Your task to perform on an android device: turn off wifi Image 0: 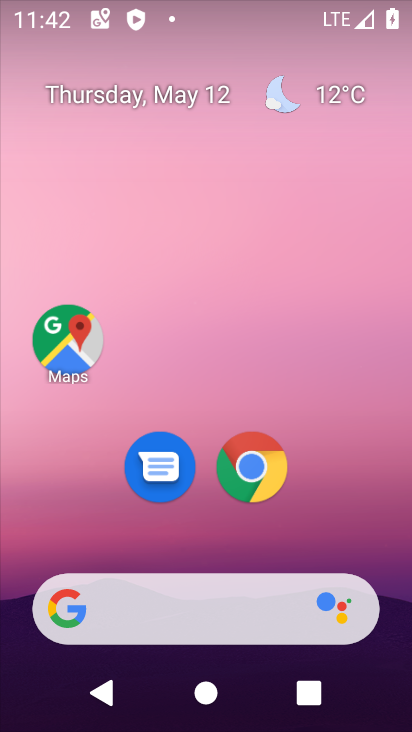
Step 0: drag from (337, 495) to (242, 112)
Your task to perform on an android device: turn off wifi Image 1: 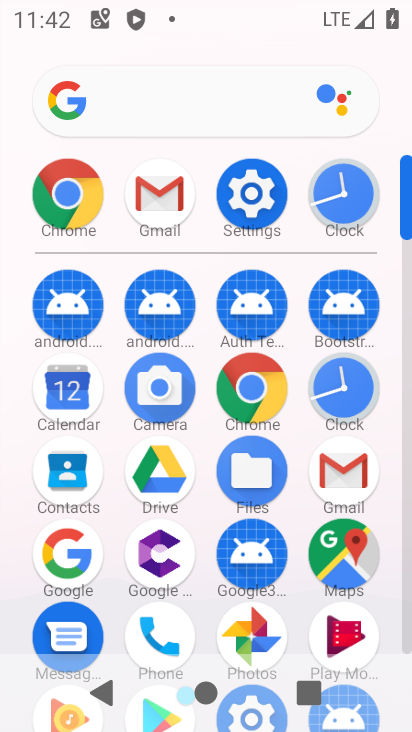
Step 1: drag from (14, 519) to (30, 239)
Your task to perform on an android device: turn off wifi Image 2: 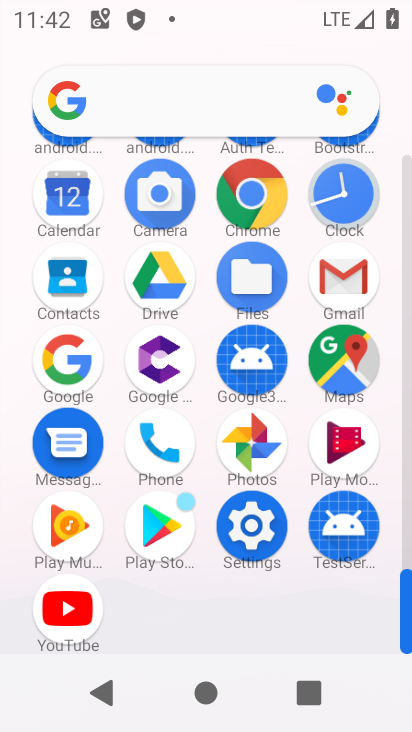
Step 2: click (248, 522)
Your task to perform on an android device: turn off wifi Image 3: 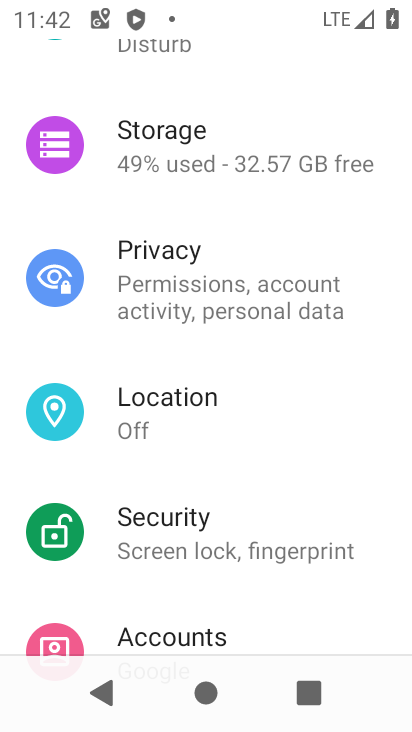
Step 3: drag from (251, 172) to (251, 533)
Your task to perform on an android device: turn off wifi Image 4: 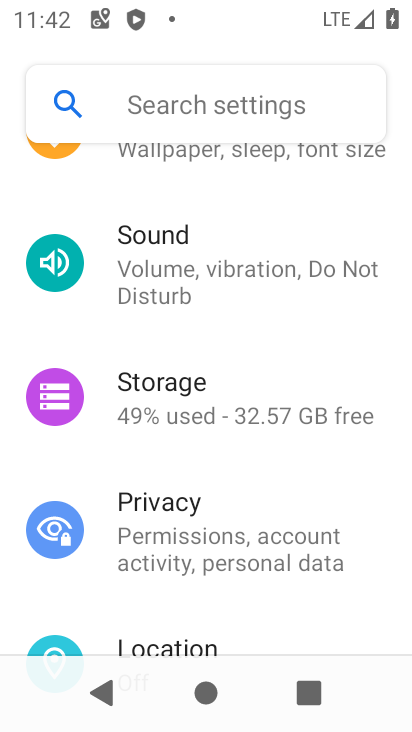
Step 4: drag from (272, 229) to (264, 570)
Your task to perform on an android device: turn off wifi Image 5: 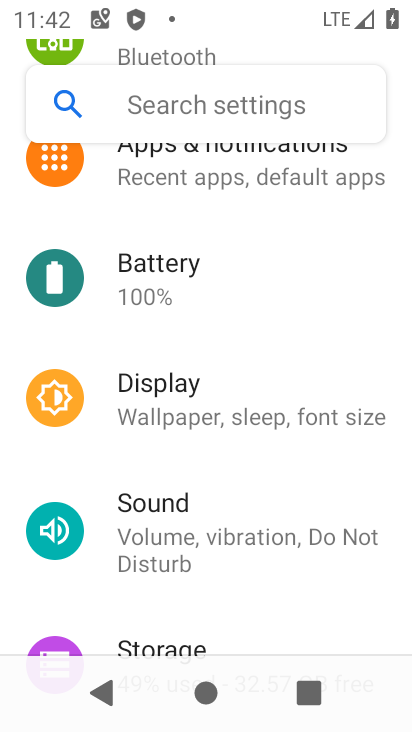
Step 5: drag from (302, 299) to (280, 613)
Your task to perform on an android device: turn off wifi Image 6: 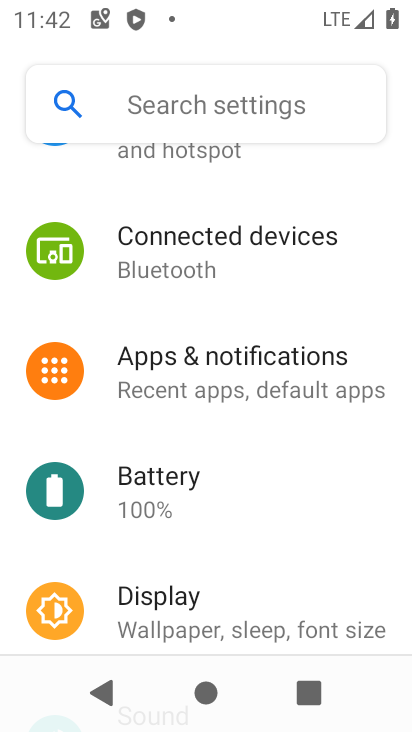
Step 6: drag from (265, 235) to (262, 644)
Your task to perform on an android device: turn off wifi Image 7: 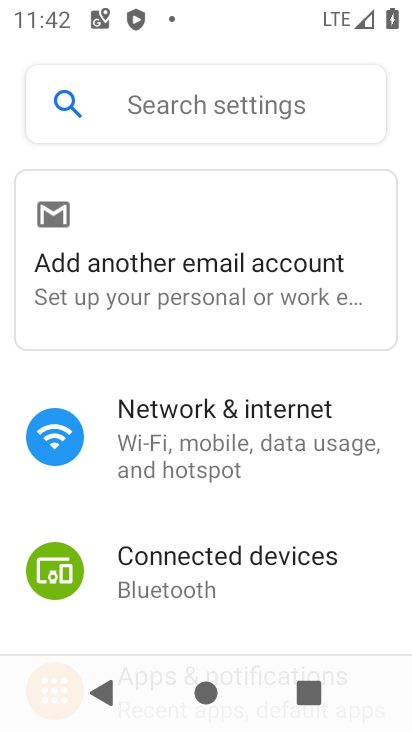
Step 7: click (227, 442)
Your task to perform on an android device: turn off wifi Image 8: 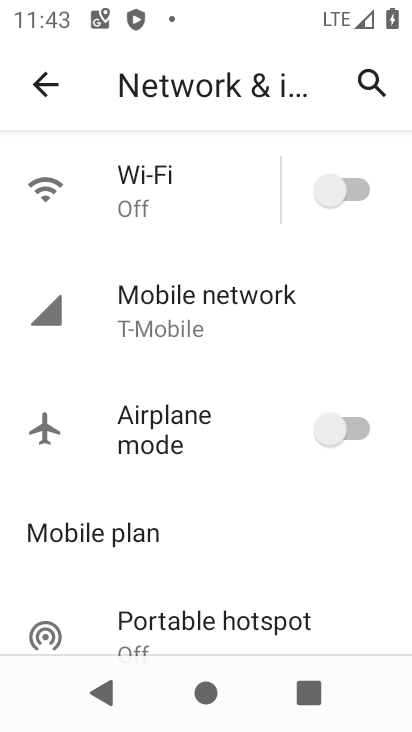
Step 8: task complete